Your task to perform on an android device: Show me popular videos on Youtube Image 0: 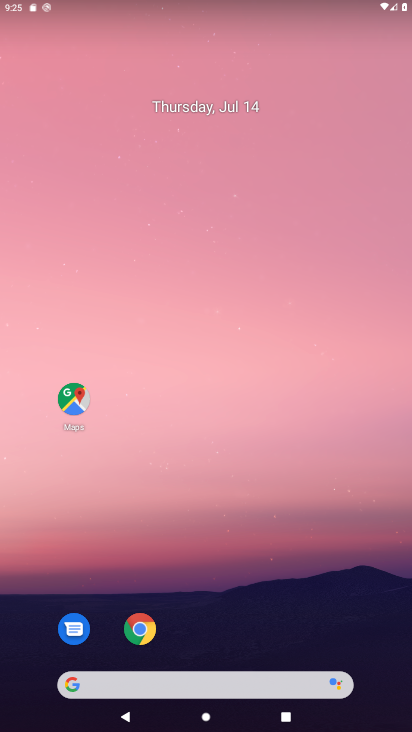
Step 0: drag from (244, 636) to (227, 108)
Your task to perform on an android device: Show me popular videos on Youtube Image 1: 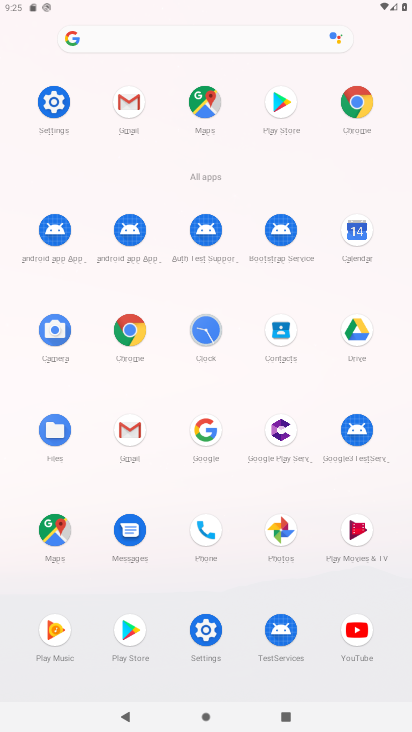
Step 1: click (347, 625)
Your task to perform on an android device: Show me popular videos on Youtube Image 2: 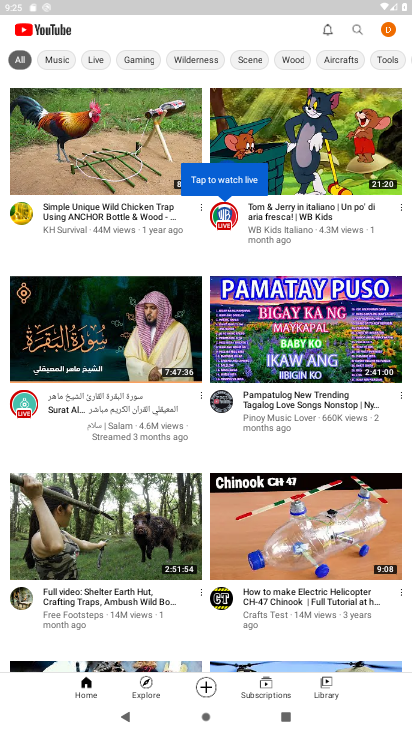
Step 2: click (356, 33)
Your task to perform on an android device: Show me popular videos on Youtube Image 3: 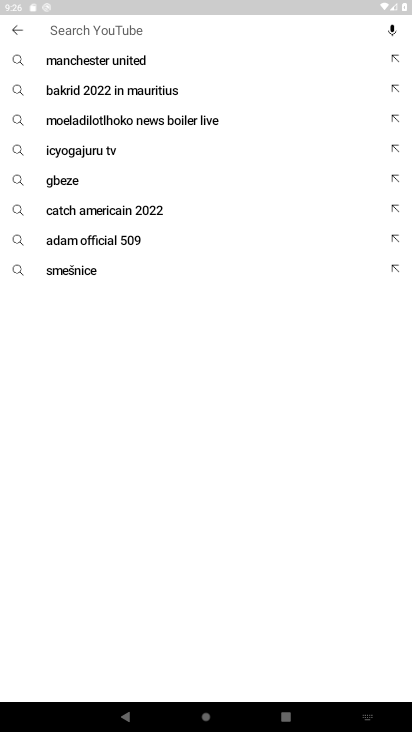
Step 3: type "popular videos "
Your task to perform on an android device: Show me popular videos on Youtube Image 4: 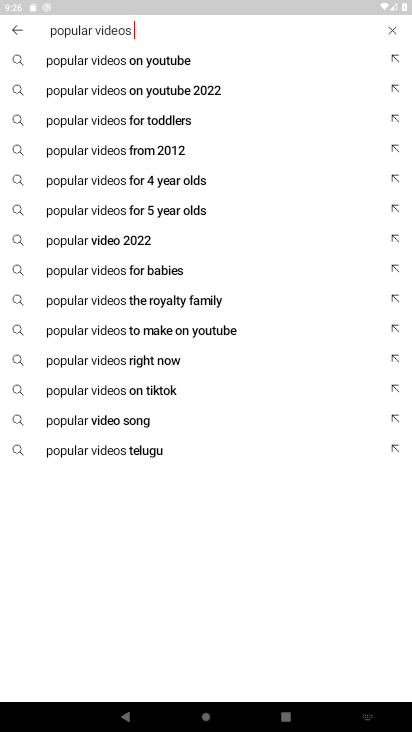
Step 4: click (99, 59)
Your task to perform on an android device: Show me popular videos on Youtube Image 5: 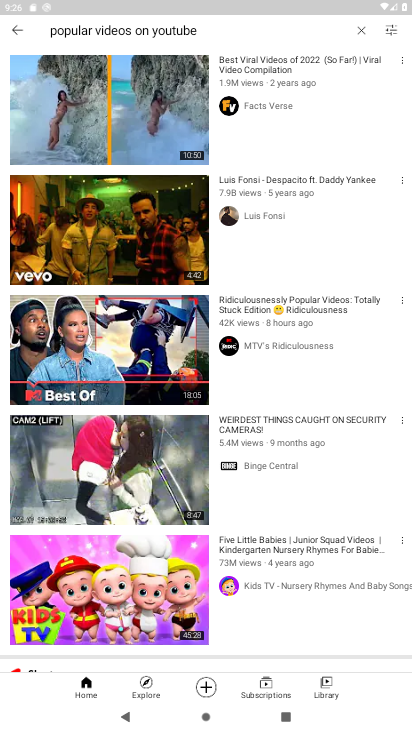
Step 5: task complete